Your task to perform on an android device: Search for sushi restaurants on Maps Image 0: 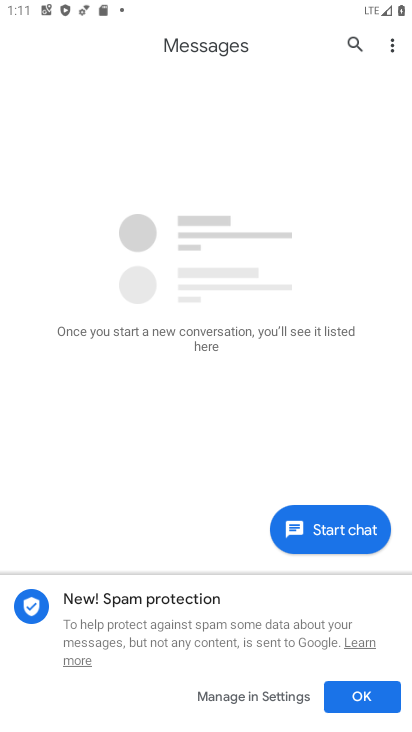
Step 0: press home button
Your task to perform on an android device: Search for sushi restaurants on Maps Image 1: 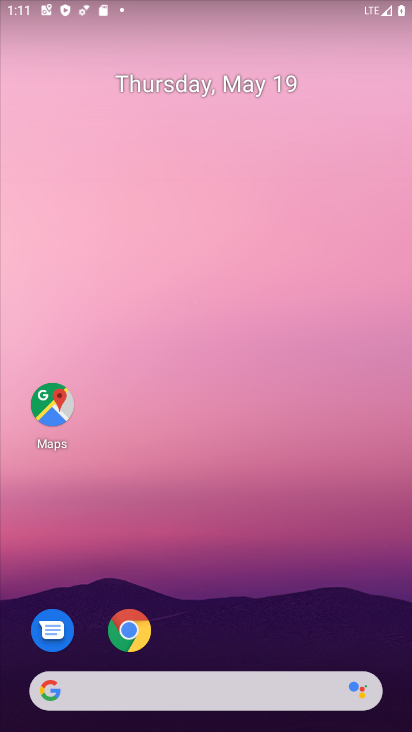
Step 1: drag from (172, 662) to (87, 80)
Your task to perform on an android device: Search for sushi restaurants on Maps Image 2: 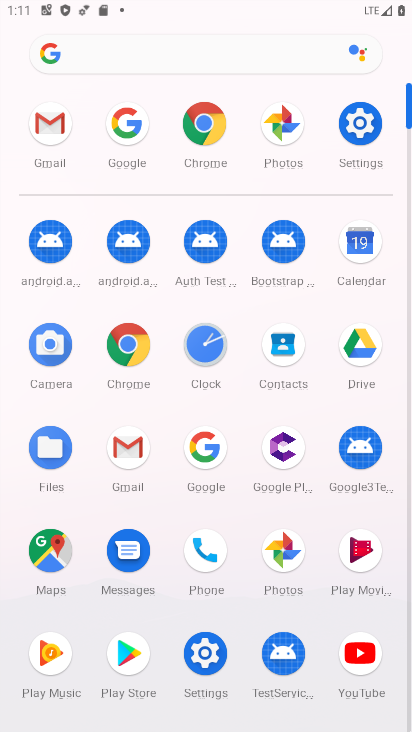
Step 2: click (60, 551)
Your task to perform on an android device: Search for sushi restaurants on Maps Image 3: 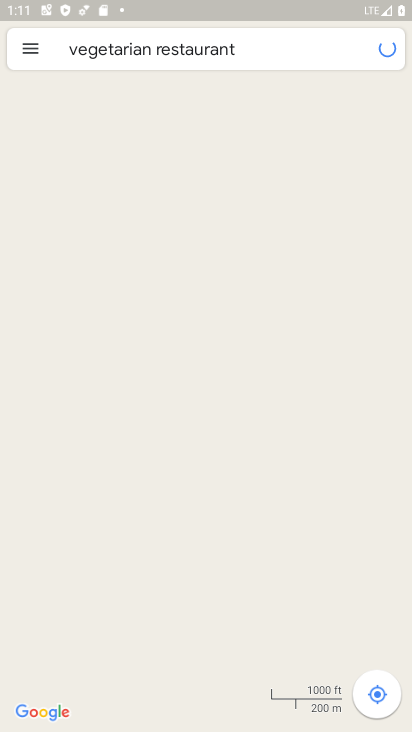
Step 3: click (184, 54)
Your task to perform on an android device: Search for sushi restaurants on Maps Image 4: 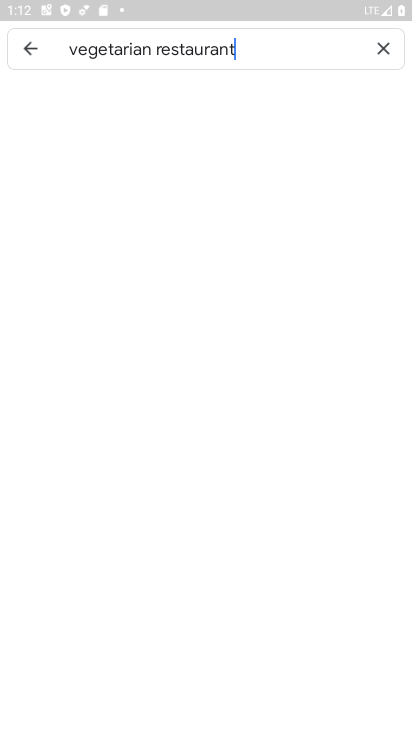
Step 4: click (387, 42)
Your task to perform on an android device: Search for sushi restaurants on Maps Image 5: 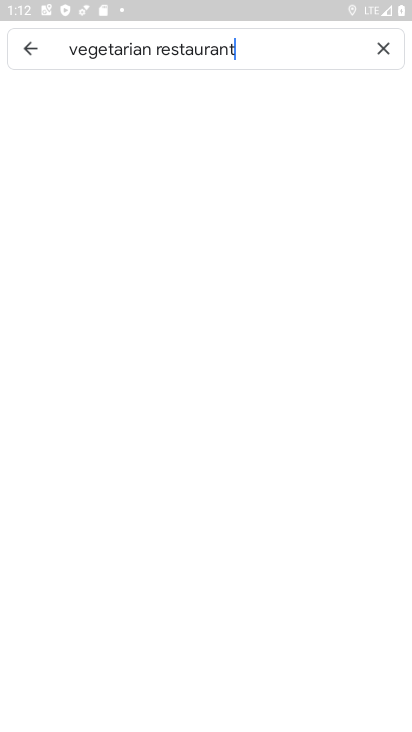
Step 5: click (381, 45)
Your task to perform on an android device: Search for sushi restaurants on Maps Image 6: 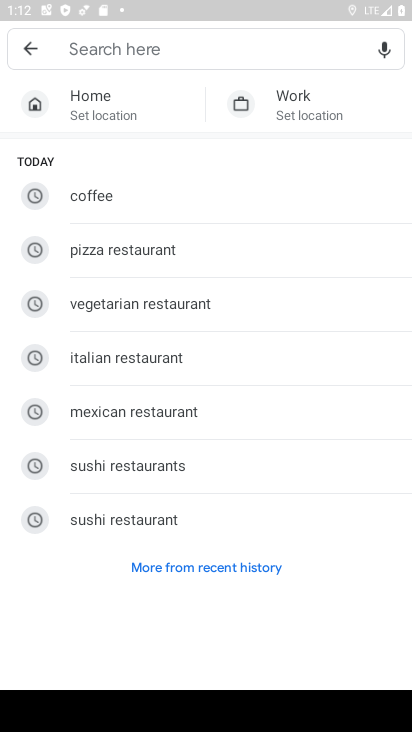
Step 6: click (141, 481)
Your task to perform on an android device: Search for sushi restaurants on Maps Image 7: 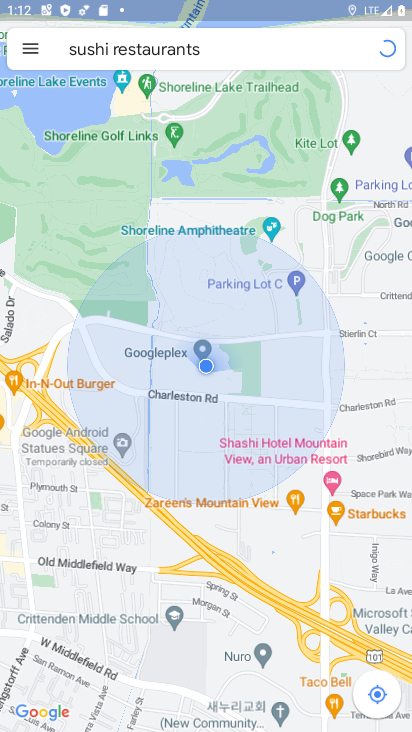
Step 7: task complete